Your task to perform on an android device: star an email in the gmail app Image 0: 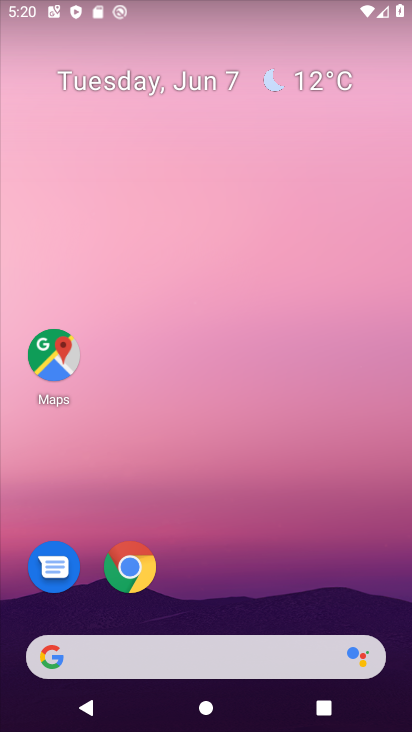
Step 0: drag from (208, 494) to (214, 4)
Your task to perform on an android device: star an email in the gmail app Image 1: 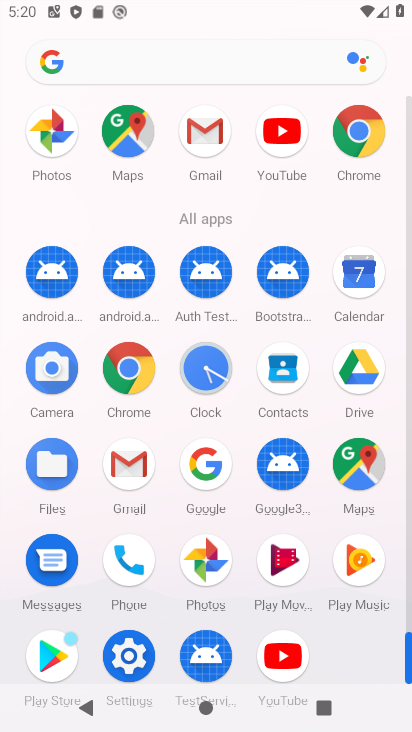
Step 1: click (129, 459)
Your task to perform on an android device: star an email in the gmail app Image 2: 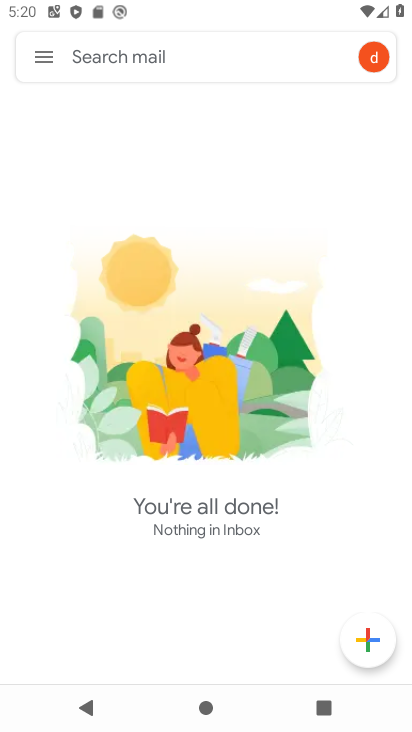
Step 2: click (48, 52)
Your task to perform on an android device: star an email in the gmail app Image 3: 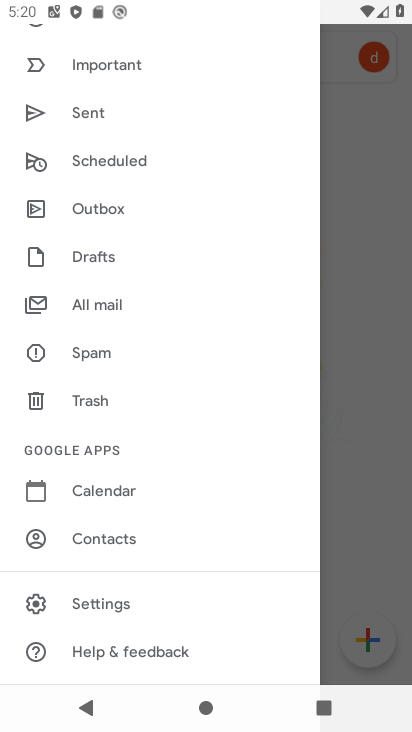
Step 3: click (115, 301)
Your task to perform on an android device: star an email in the gmail app Image 4: 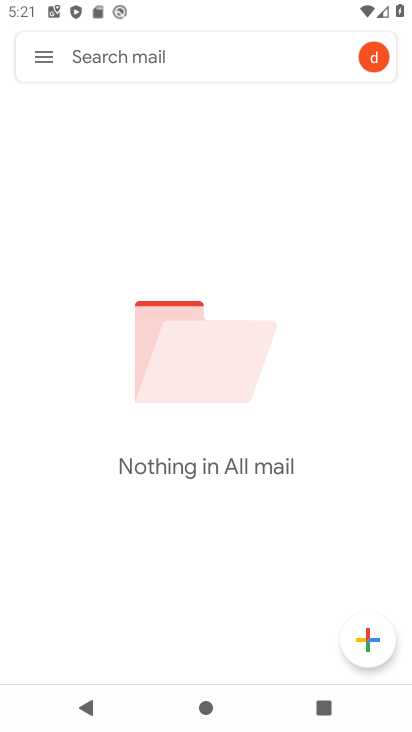
Step 4: task complete